Your task to perform on an android device: Open Chrome and go to the settings page Image 0: 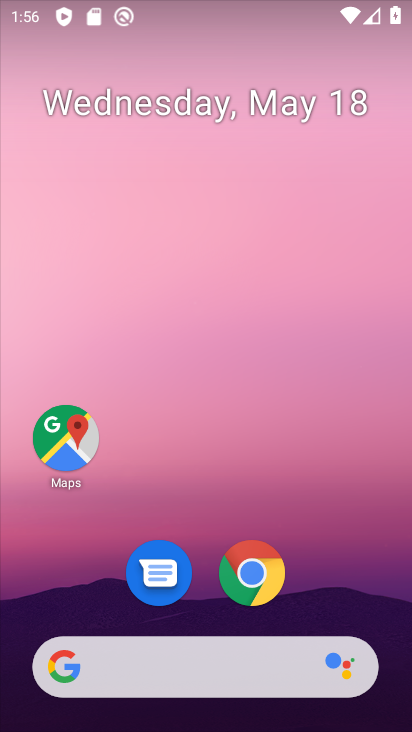
Step 0: click (257, 572)
Your task to perform on an android device: Open Chrome and go to the settings page Image 1: 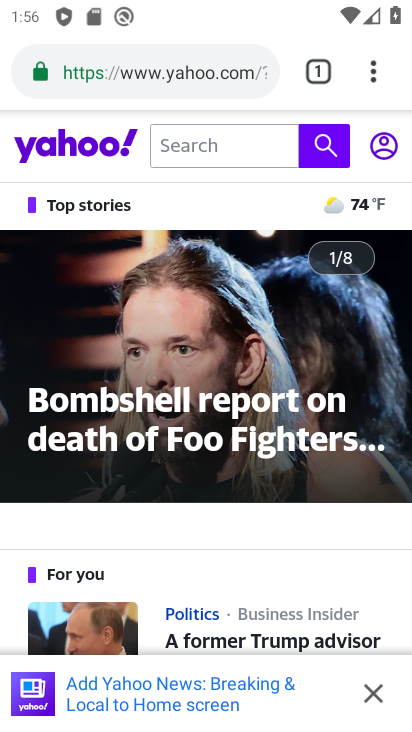
Step 1: task complete